Your task to perform on an android device: Open Google Chrome Image 0: 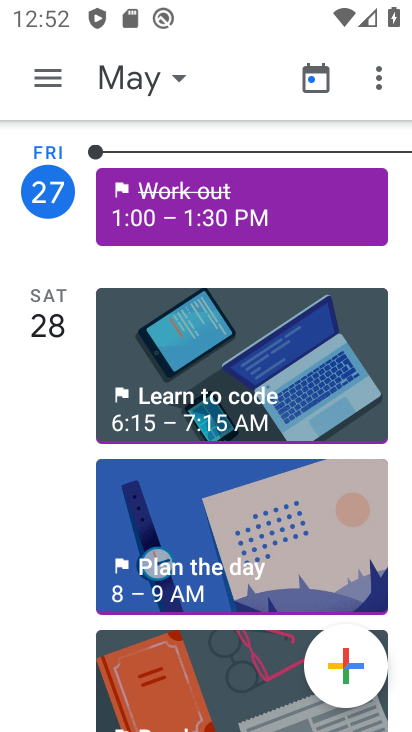
Step 0: press home button
Your task to perform on an android device: Open Google Chrome Image 1: 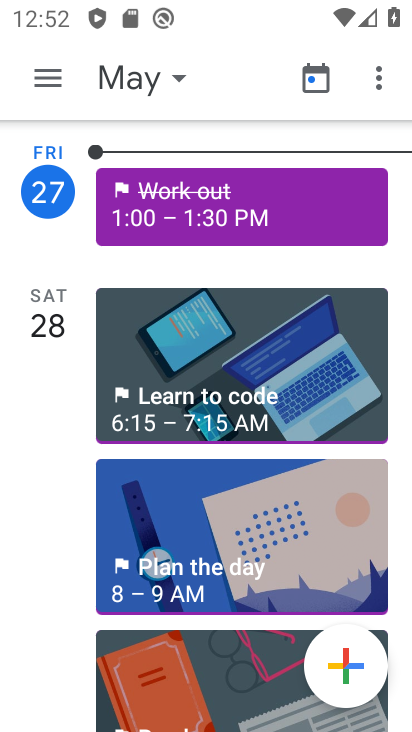
Step 1: press home button
Your task to perform on an android device: Open Google Chrome Image 2: 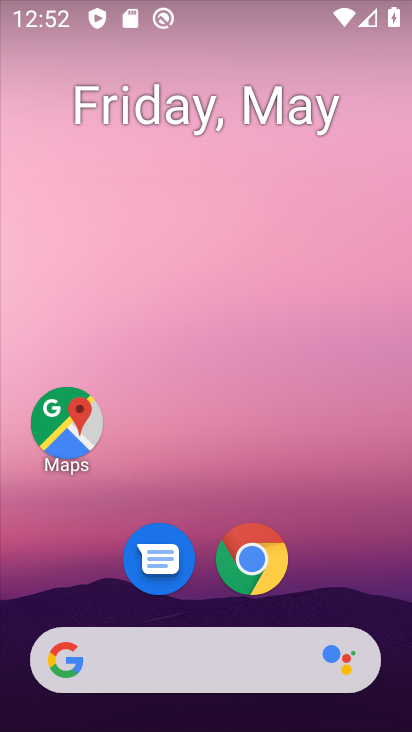
Step 2: click (248, 556)
Your task to perform on an android device: Open Google Chrome Image 3: 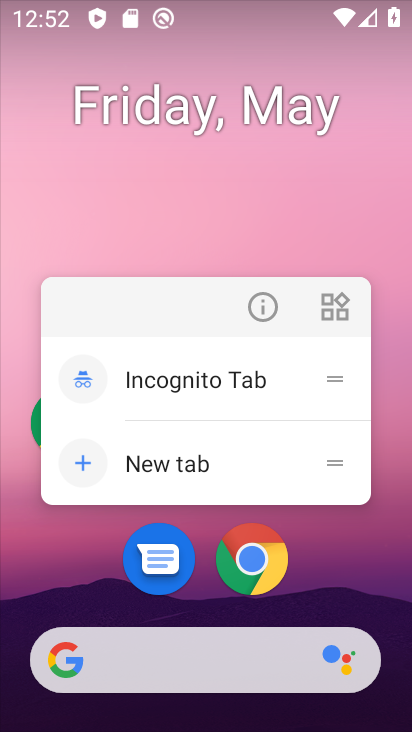
Step 3: click (256, 553)
Your task to perform on an android device: Open Google Chrome Image 4: 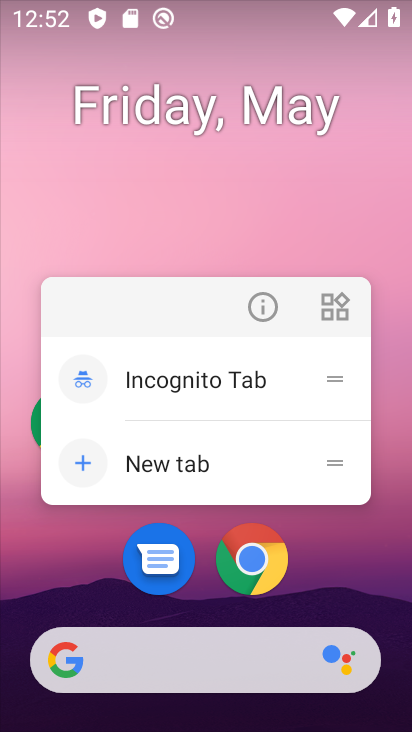
Step 4: click (330, 553)
Your task to perform on an android device: Open Google Chrome Image 5: 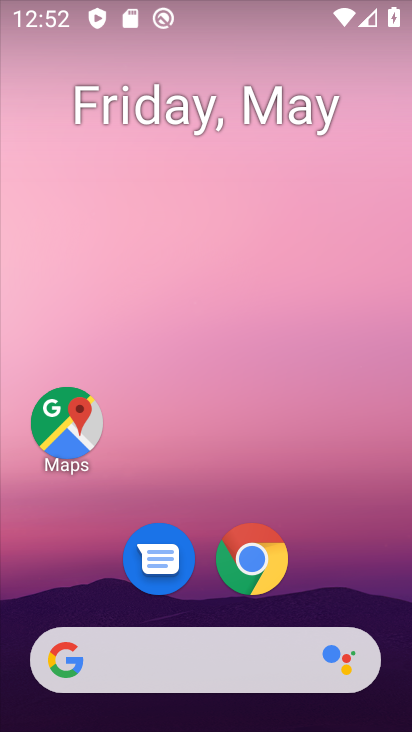
Step 5: drag from (330, 553) to (319, 100)
Your task to perform on an android device: Open Google Chrome Image 6: 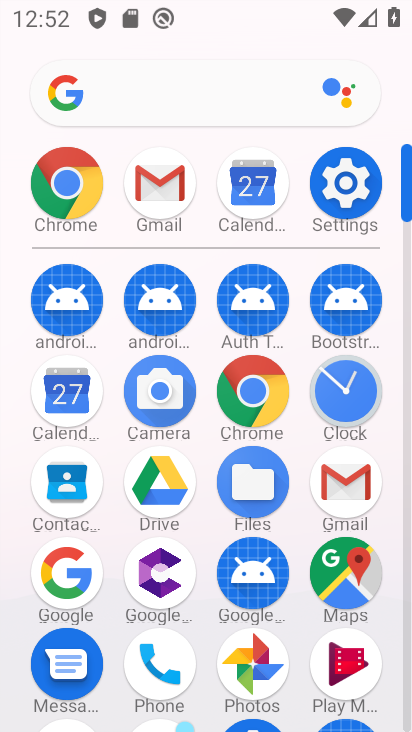
Step 6: click (262, 384)
Your task to perform on an android device: Open Google Chrome Image 7: 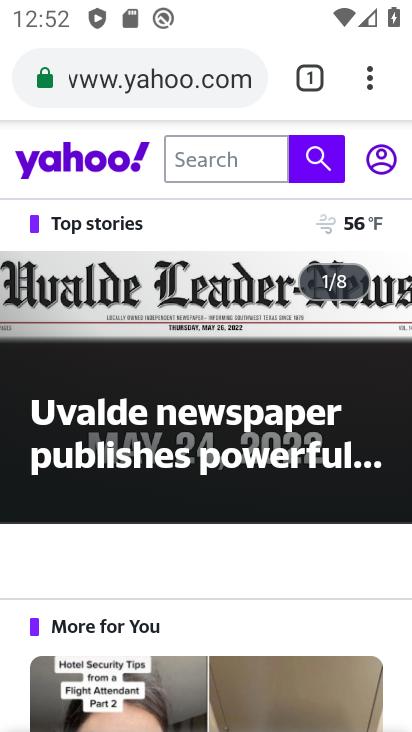
Step 7: task complete